Your task to perform on an android device: Is it going to rain tomorrow? Image 0: 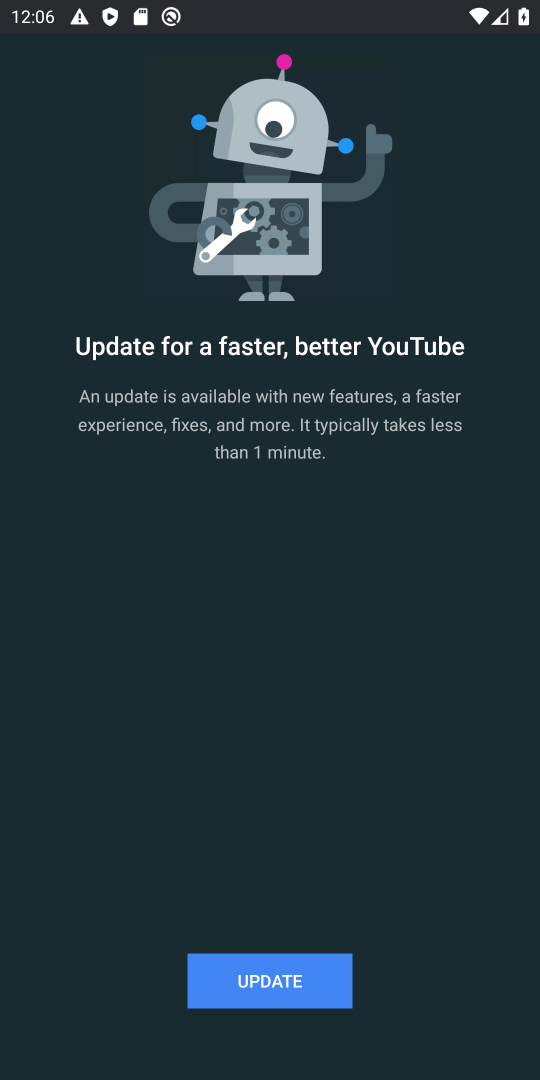
Step 0: press home button
Your task to perform on an android device: Is it going to rain tomorrow? Image 1: 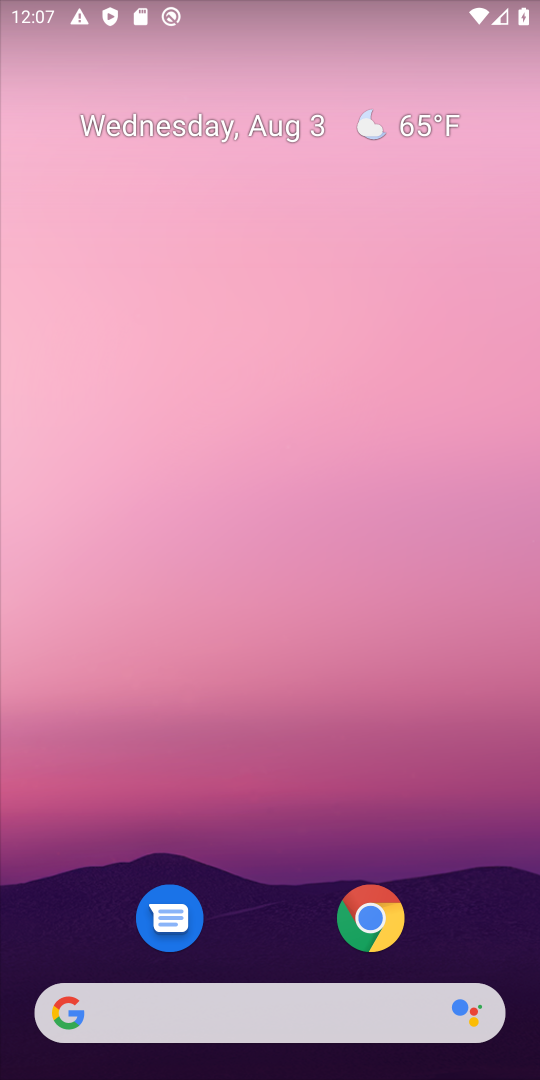
Step 1: click (312, 1014)
Your task to perform on an android device: Is it going to rain tomorrow? Image 2: 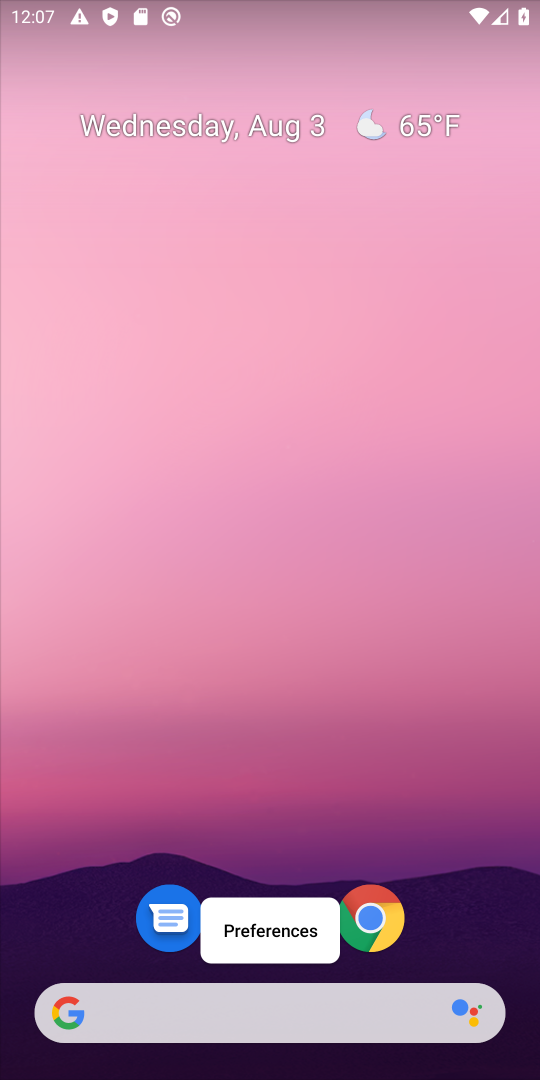
Step 2: click (312, 1014)
Your task to perform on an android device: Is it going to rain tomorrow? Image 3: 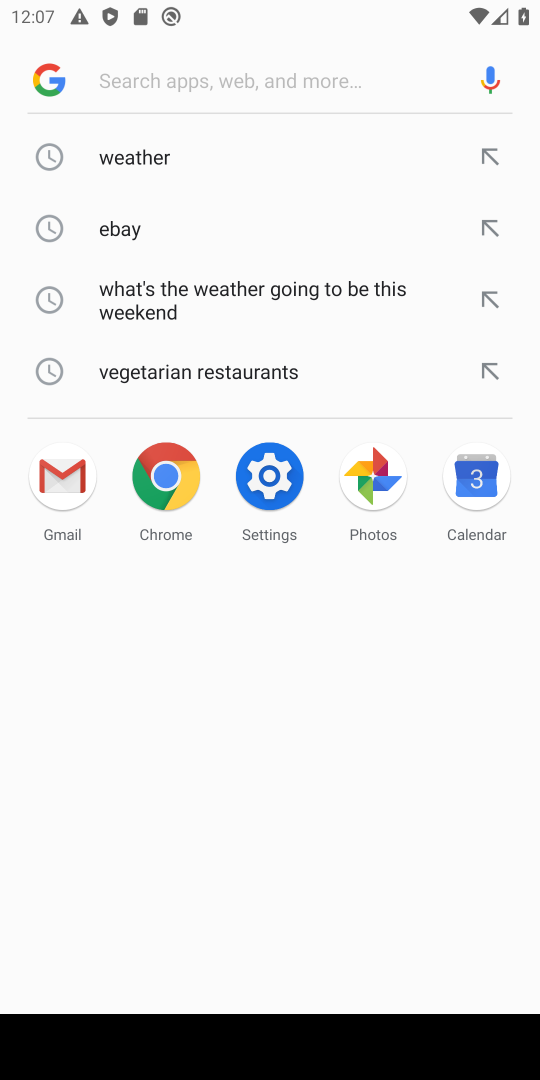
Step 3: click (46, 78)
Your task to perform on an android device: Is it going to rain tomorrow? Image 4: 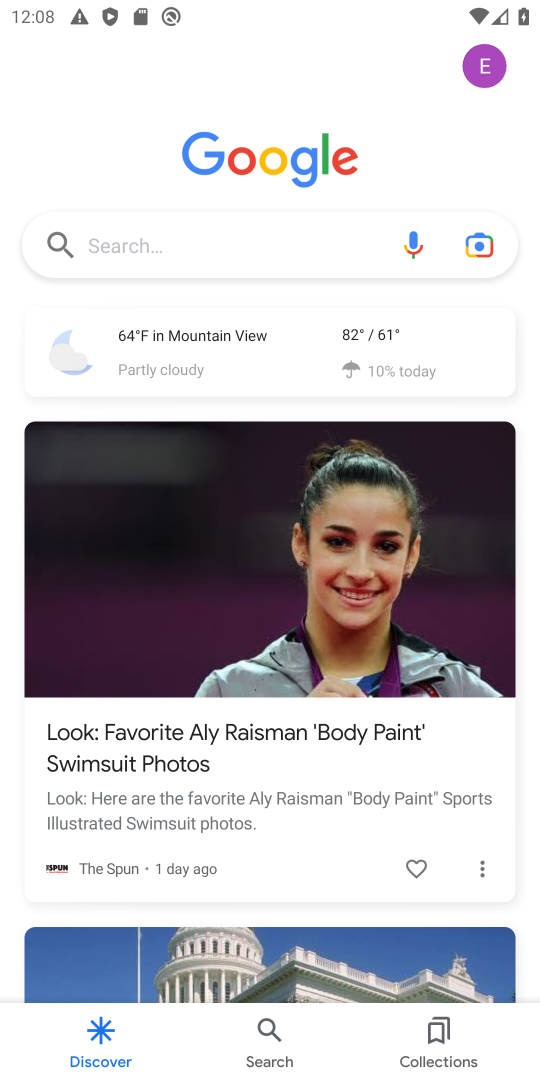
Step 4: click (160, 349)
Your task to perform on an android device: Is it going to rain tomorrow? Image 5: 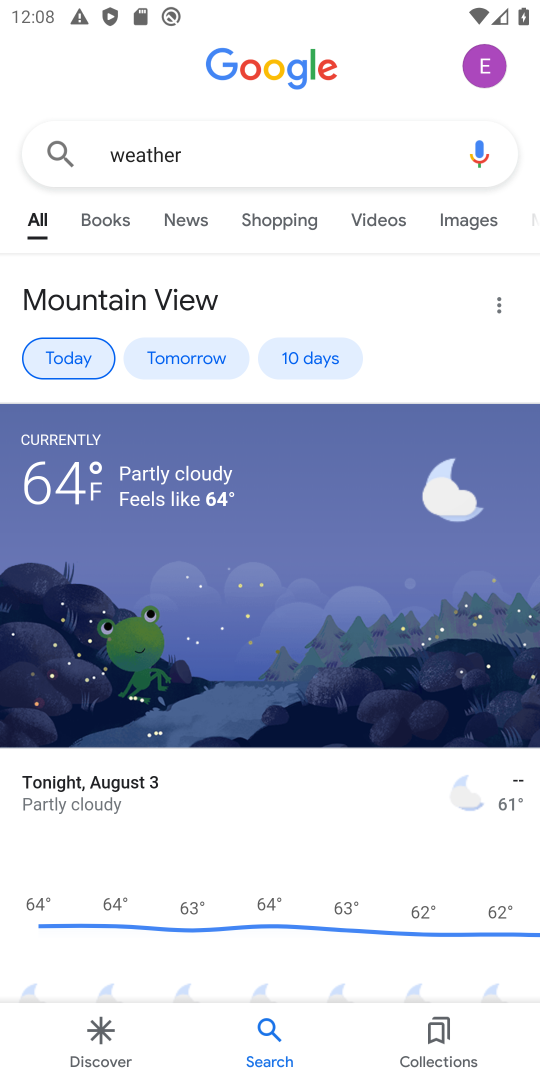
Step 5: click (215, 355)
Your task to perform on an android device: Is it going to rain tomorrow? Image 6: 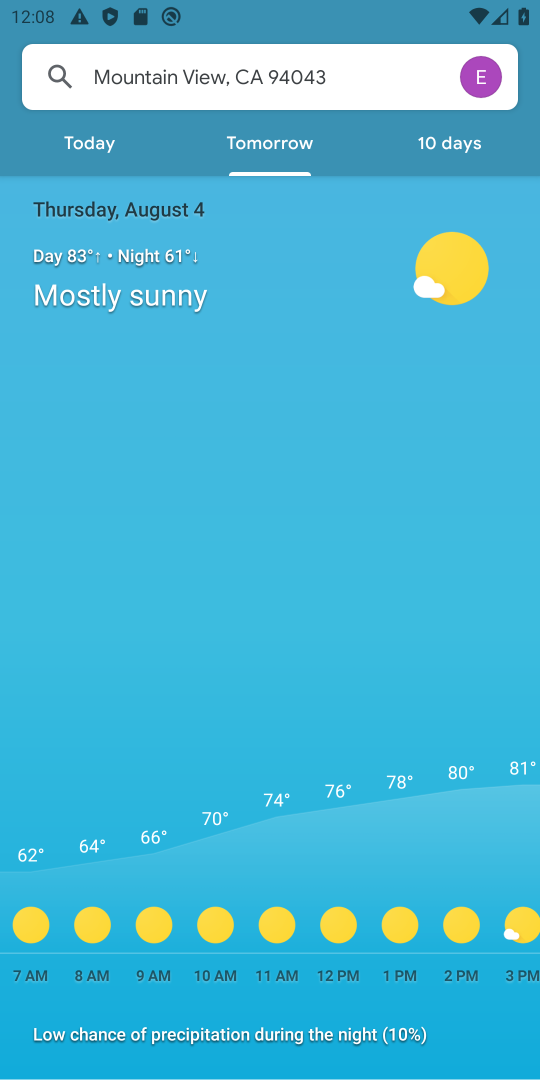
Step 6: task complete